Your task to perform on an android device: turn on translation in the chrome app Image 0: 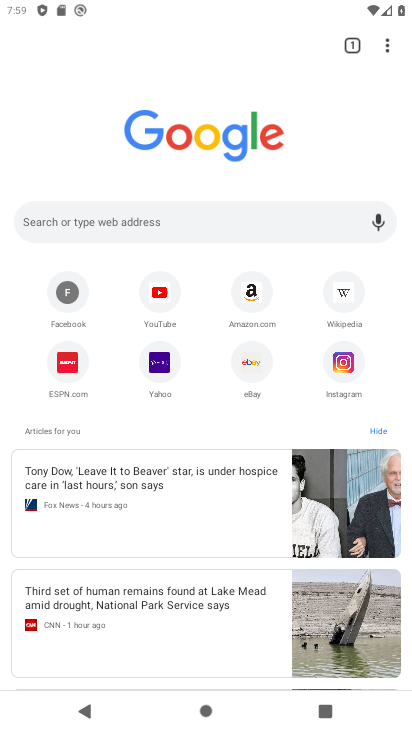
Step 0: click (163, 646)
Your task to perform on an android device: turn on translation in the chrome app Image 1: 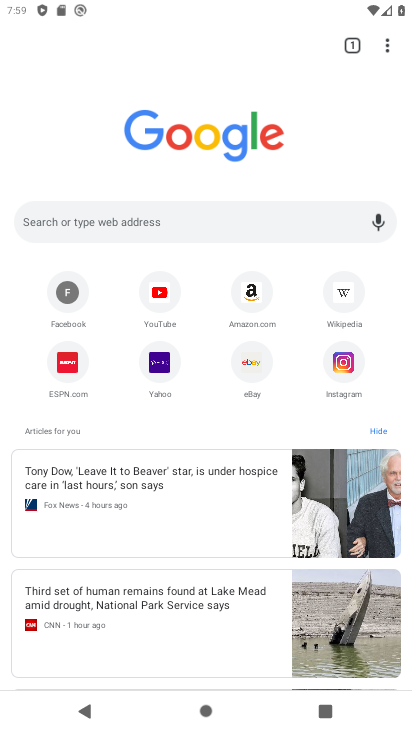
Step 1: press home button
Your task to perform on an android device: turn on translation in the chrome app Image 2: 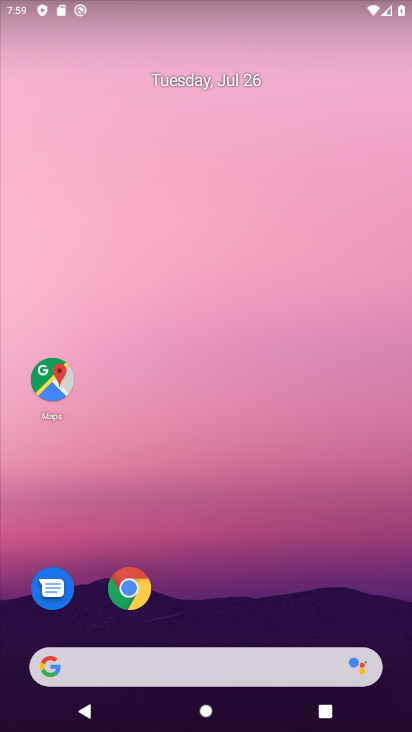
Step 2: click (130, 575)
Your task to perform on an android device: turn on translation in the chrome app Image 3: 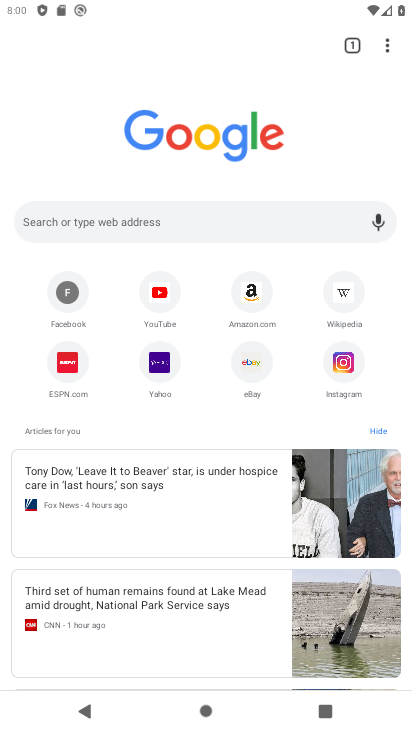
Step 3: click (383, 46)
Your task to perform on an android device: turn on translation in the chrome app Image 4: 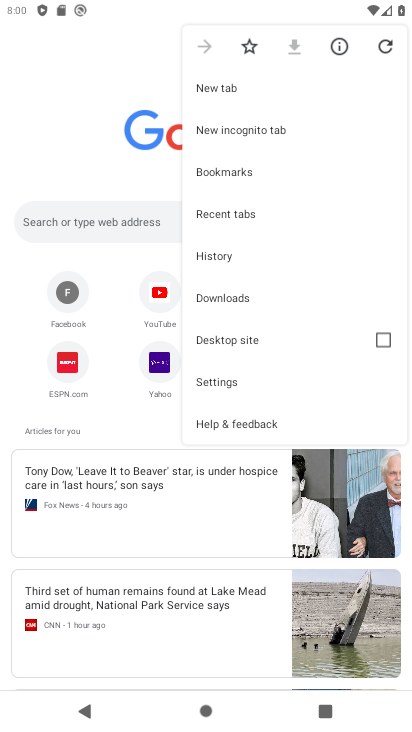
Step 4: click (208, 387)
Your task to perform on an android device: turn on translation in the chrome app Image 5: 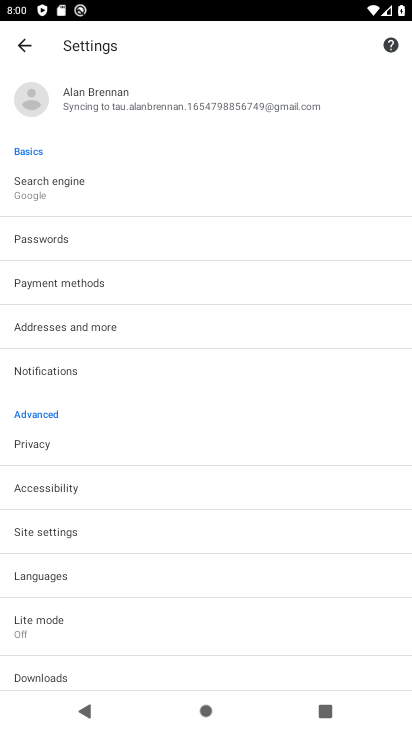
Step 5: click (42, 579)
Your task to perform on an android device: turn on translation in the chrome app Image 6: 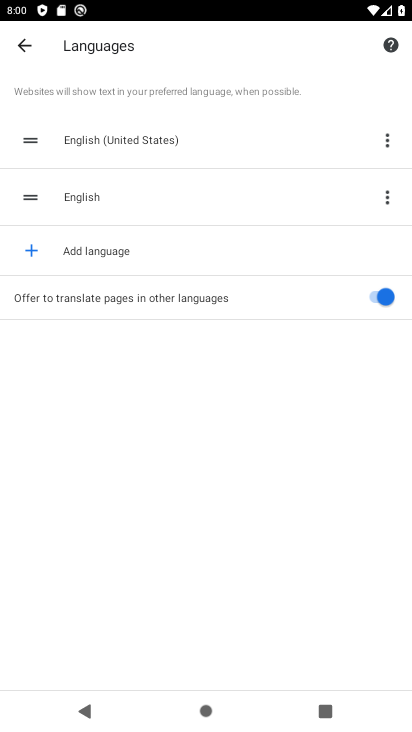
Step 6: task complete